Your task to perform on an android device: Add beats solo 3 to the cart on ebay, then select checkout. Image 0: 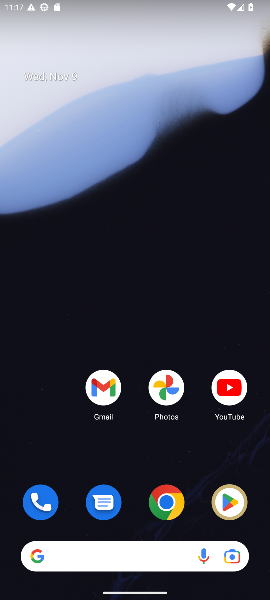
Step 0: drag from (154, 400) to (171, 27)
Your task to perform on an android device: Add beats solo 3 to the cart on ebay, then select checkout. Image 1: 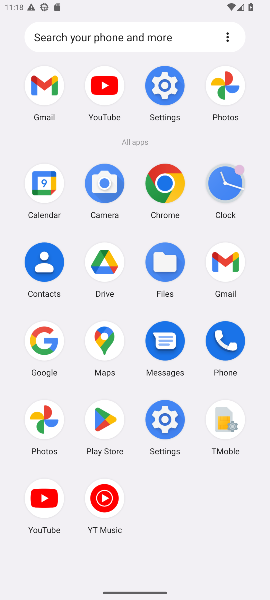
Step 1: click (163, 184)
Your task to perform on an android device: Add beats solo 3 to the cart on ebay, then select checkout. Image 2: 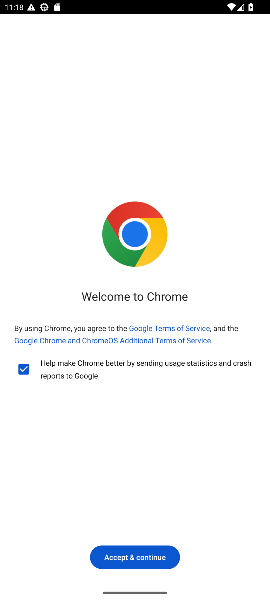
Step 2: click (133, 560)
Your task to perform on an android device: Add beats solo 3 to the cart on ebay, then select checkout. Image 3: 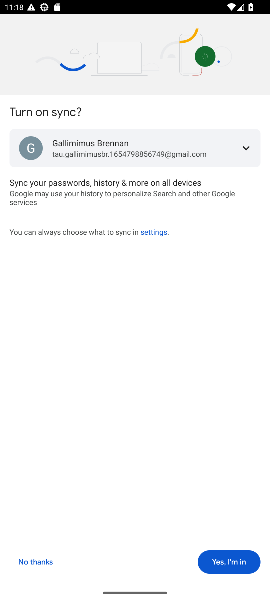
Step 3: click (222, 567)
Your task to perform on an android device: Add beats solo 3 to the cart on ebay, then select checkout. Image 4: 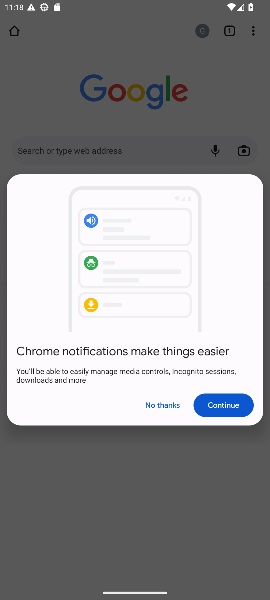
Step 4: click (215, 414)
Your task to perform on an android device: Add beats solo 3 to the cart on ebay, then select checkout. Image 5: 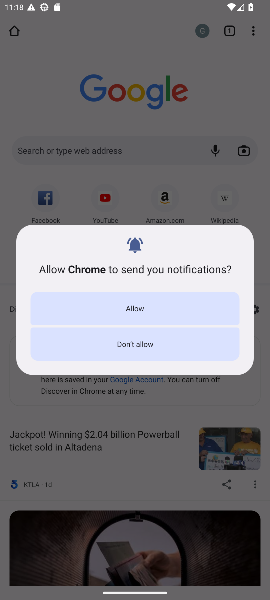
Step 5: click (163, 345)
Your task to perform on an android device: Add beats solo 3 to the cart on ebay, then select checkout. Image 6: 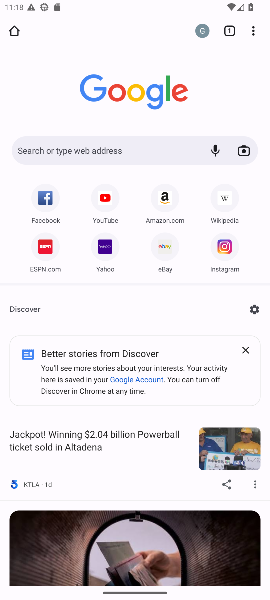
Step 6: click (148, 149)
Your task to perform on an android device: Add beats solo 3 to the cart on ebay, then select checkout. Image 7: 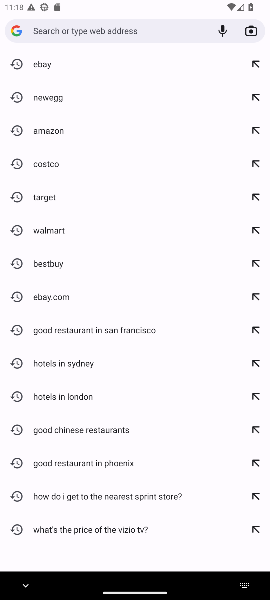
Step 7: type "ebay.com"
Your task to perform on an android device: Add beats solo 3 to the cart on ebay, then select checkout. Image 8: 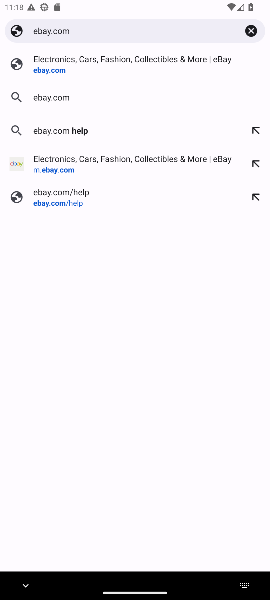
Step 8: press enter
Your task to perform on an android device: Add beats solo 3 to the cart on ebay, then select checkout. Image 9: 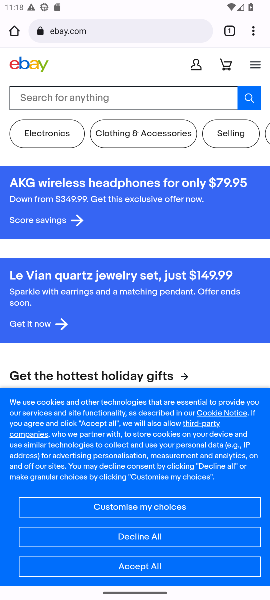
Step 9: click (117, 101)
Your task to perform on an android device: Add beats solo 3 to the cart on ebay, then select checkout. Image 10: 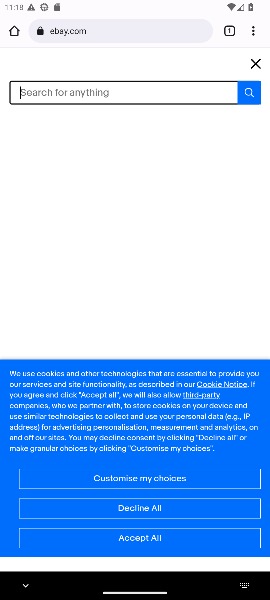
Step 10: type "beats solo 3"
Your task to perform on an android device: Add beats solo 3 to the cart on ebay, then select checkout. Image 11: 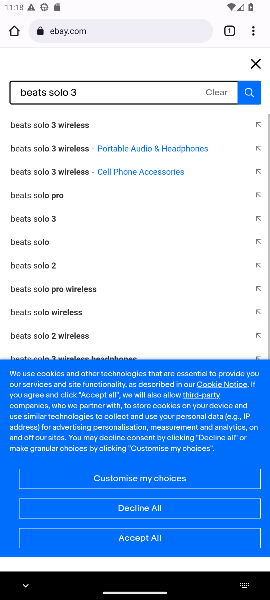
Step 11: press enter
Your task to perform on an android device: Add beats solo 3 to the cart on ebay, then select checkout. Image 12: 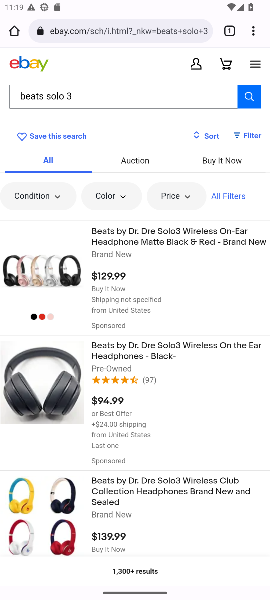
Step 12: click (168, 238)
Your task to perform on an android device: Add beats solo 3 to the cart on ebay, then select checkout. Image 13: 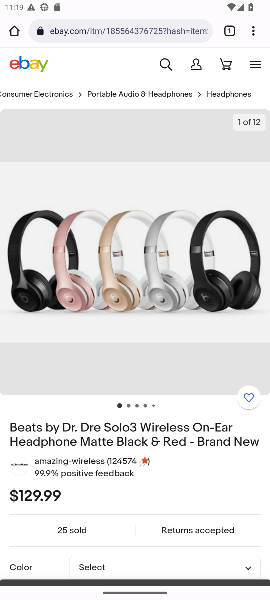
Step 13: drag from (142, 489) to (142, 206)
Your task to perform on an android device: Add beats solo 3 to the cart on ebay, then select checkout. Image 14: 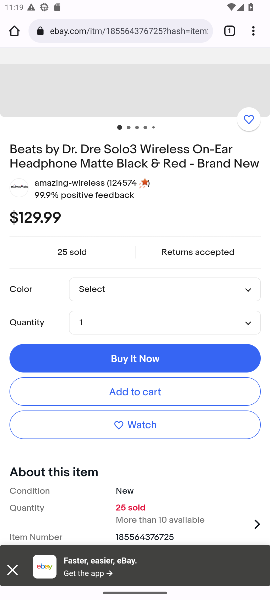
Step 14: click (169, 391)
Your task to perform on an android device: Add beats solo 3 to the cart on ebay, then select checkout. Image 15: 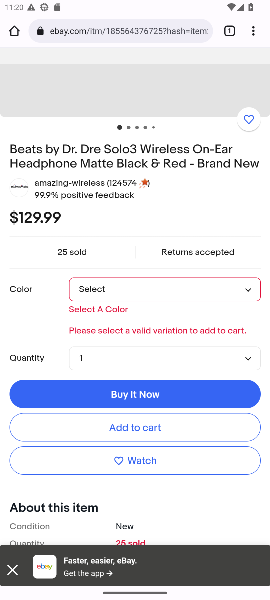
Step 15: click (151, 291)
Your task to perform on an android device: Add beats solo 3 to the cart on ebay, then select checkout. Image 16: 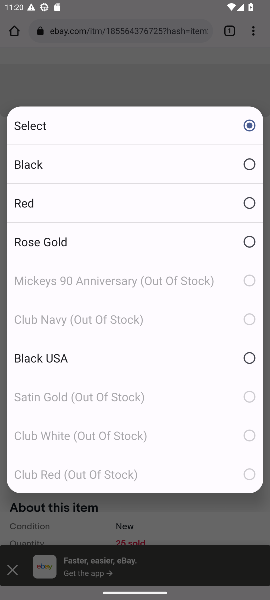
Step 16: click (185, 162)
Your task to perform on an android device: Add beats solo 3 to the cart on ebay, then select checkout. Image 17: 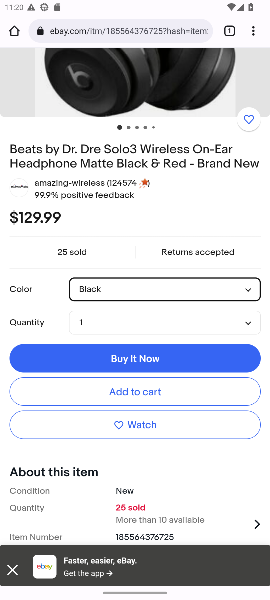
Step 17: drag from (169, 225) to (170, 70)
Your task to perform on an android device: Add beats solo 3 to the cart on ebay, then select checkout. Image 18: 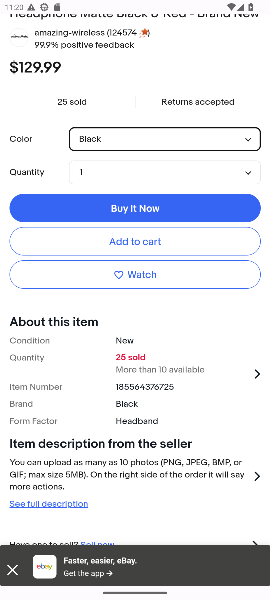
Step 18: click (154, 241)
Your task to perform on an android device: Add beats solo 3 to the cart on ebay, then select checkout. Image 19: 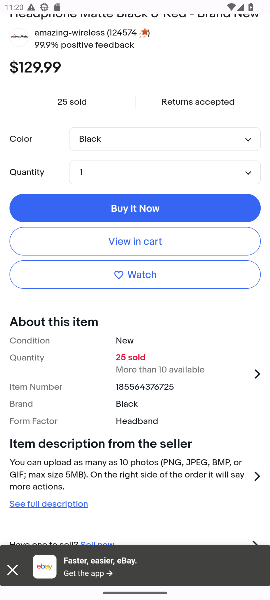
Step 19: click (118, 246)
Your task to perform on an android device: Add beats solo 3 to the cart on ebay, then select checkout. Image 20: 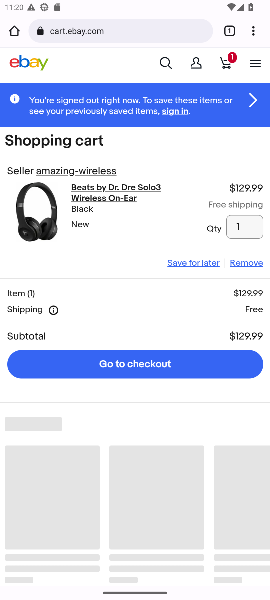
Step 20: click (139, 362)
Your task to perform on an android device: Add beats solo 3 to the cart on ebay, then select checkout. Image 21: 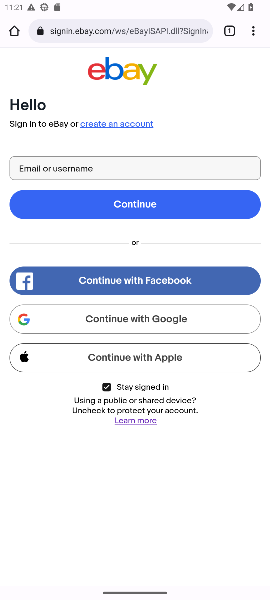
Step 21: click (118, 25)
Your task to perform on an android device: Add beats solo 3 to the cart on ebay, then select checkout. Image 22: 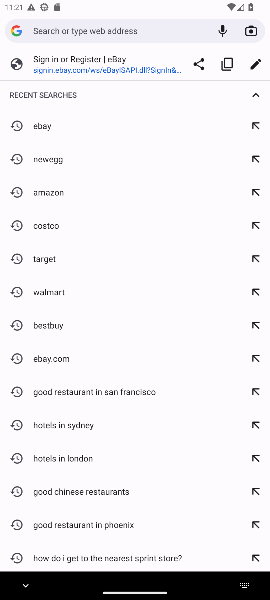
Step 22: type "ebay.com"
Your task to perform on an android device: Add beats solo 3 to the cart on ebay, then select checkout. Image 23: 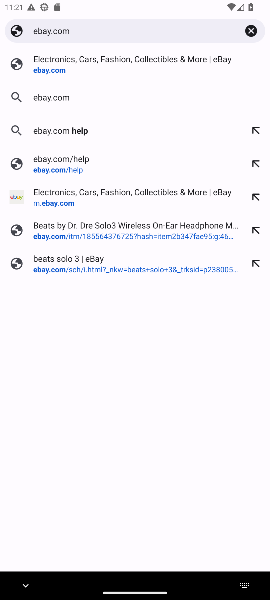
Step 23: press enter
Your task to perform on an android device: Add beats solo 3 to the cart on ebay, then select checkout. Image 24: 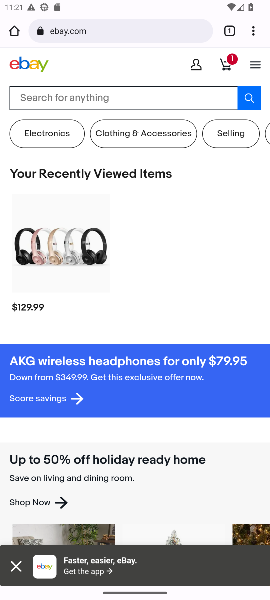
Step 24: click (141, 99)
Your task to perform on an android device: Add beats solo 3 to the cart on ebay, then select checkout. Image 25: 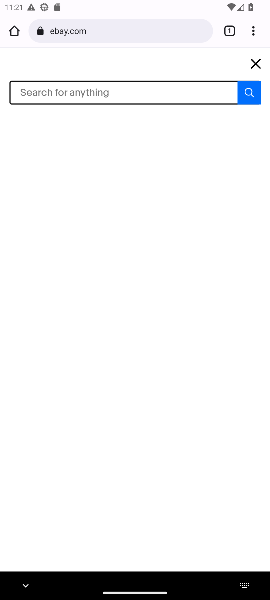
Step 25: type "beats solo 3"
Your task to perform on an android device: Add beats solo 3 to the cart on ebay, then select checkout. Image 26: 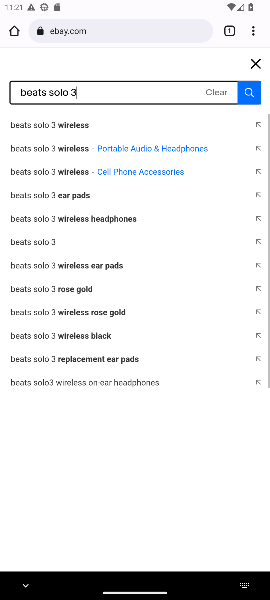
Step 26: press enter
Your task to perform on an android device: Add beats solo 3 to the cart on ebay, then select checkout. Image 27: 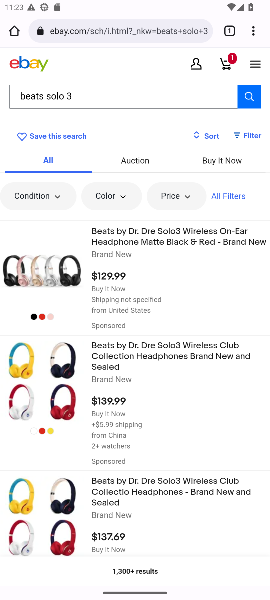
Step 27: click (173, 243)
Your task to perform on an android device: Add beats solo 3 to the cart on ebay, then select checkout. Image 28: 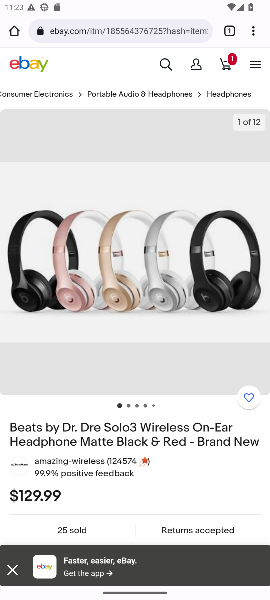
Step 28: click (230, 65)
Your task to perform on an android device: Add beats solo 3 to the cart on ebay, then select checkout. Image 29: 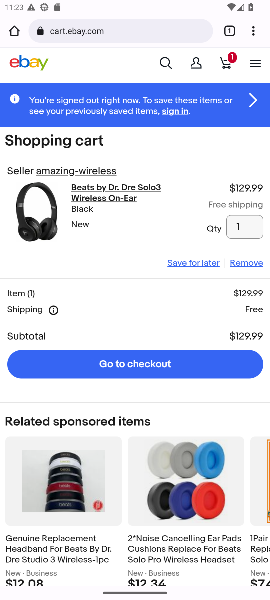
Step 29: click (139, 365)
Your task to perform on an android device: Add beats solo 3 to the cart on ebay, then select checkout. Image 30: 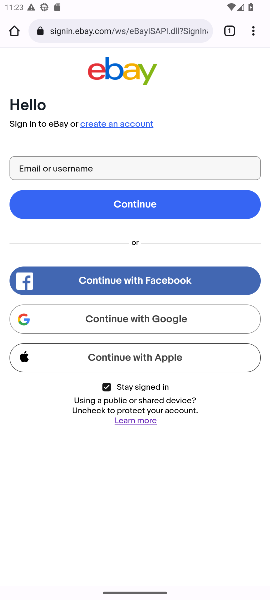
Step 30: task complete